Your task to perform on an android device: change keyboard looks Image 0: 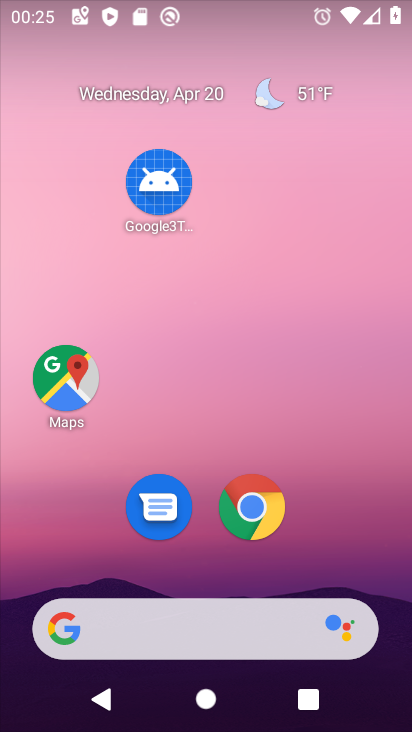
Step 0: drag from (203, 577) to (254, 0)
Your task to perform on an android device: change keyboard looks Image 1: 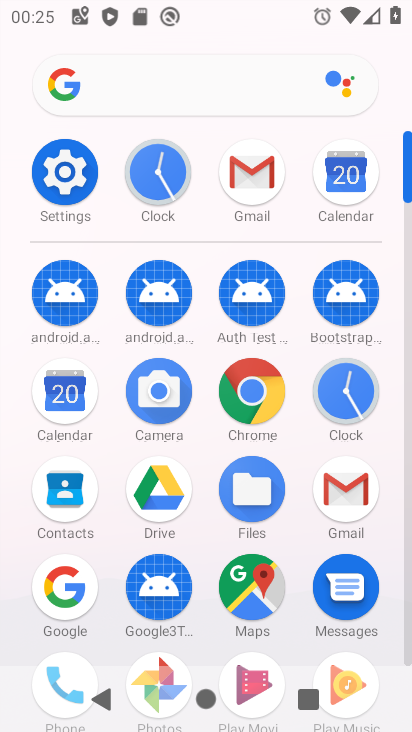
Step 1: click (58, 169)
Your task to perform on an android device: change keyboard looks Image 2: 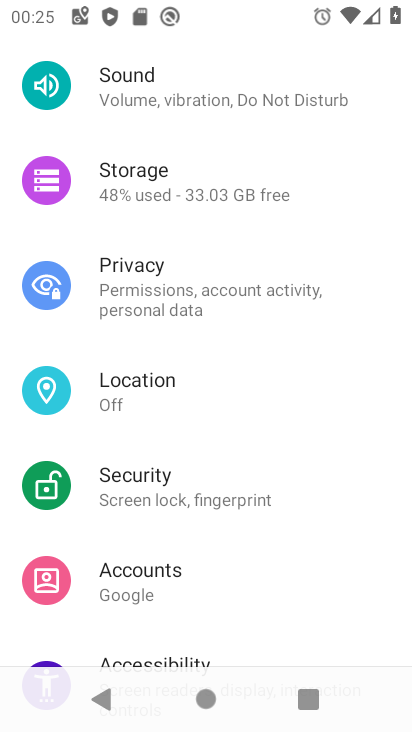
Step 2: drag from (239, 549) to (290, 23)
Your task to perform on an android device: change keyboard looks Image 3: 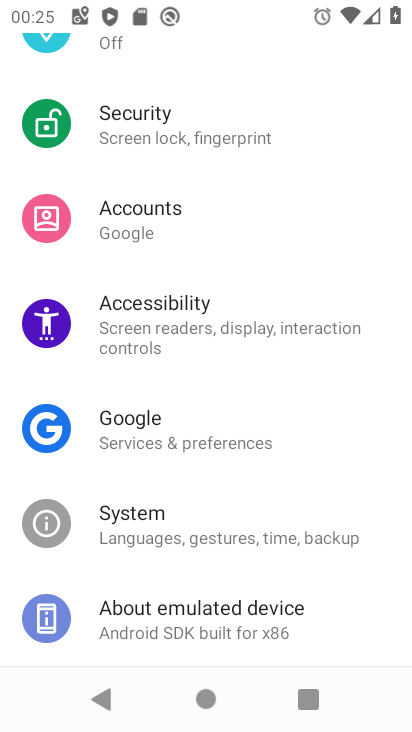
Step 3: drag from (195, 557) to (180, 70)
Your task to perform on an android device: change keyboard looks Image 4: 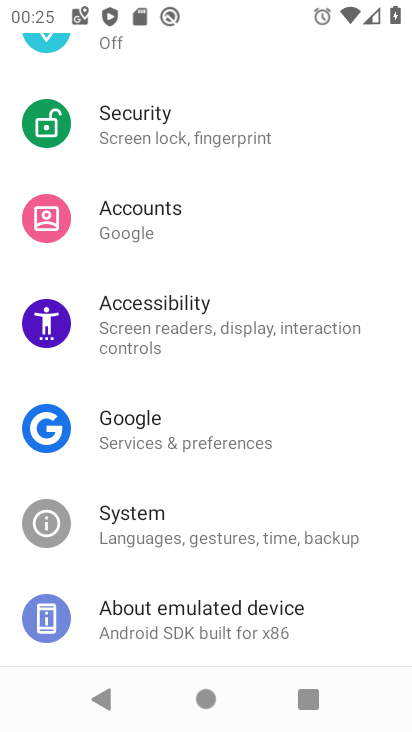
Step 4: click (132, 519)
Your task to perform on an android device: change keyboard looks Image 5: 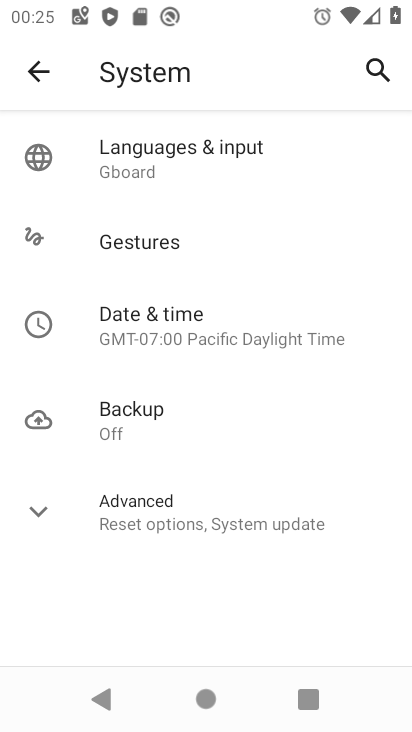
Step 5: click (132, 149)
Your task to perform on an android device: change keyboard looks Image 6: 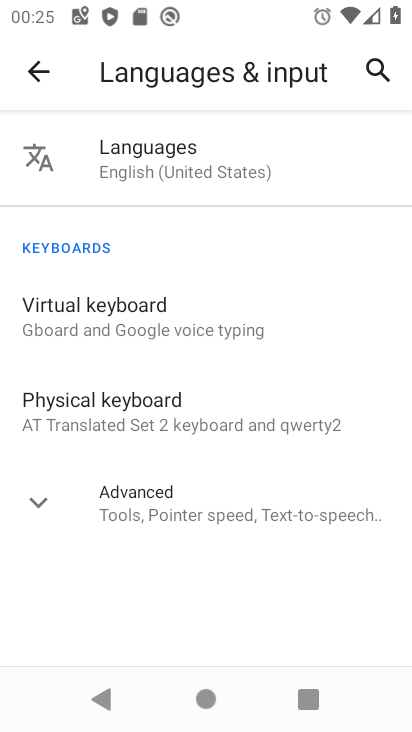
Step 6: click (99, 297)
Your task to perform on an android device: change keyboard looks Image 7: 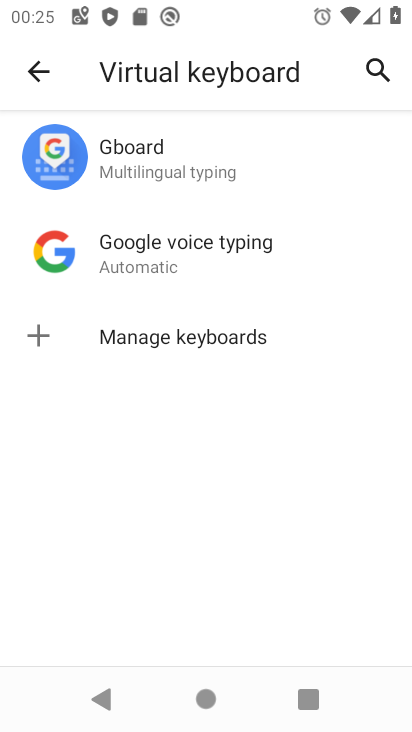
Step 7: click (130, 161)
Your task to perform on an android device: change keyboard looks Image 8: 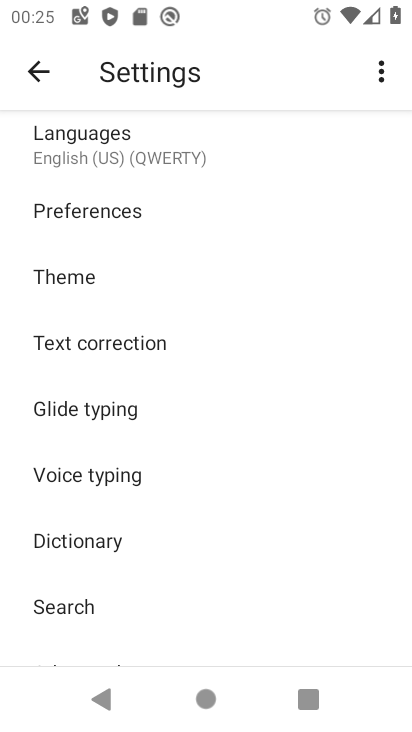
Step 8: click (75, 280)
Your task to perform on an android device: change keyboard looks Image 9: 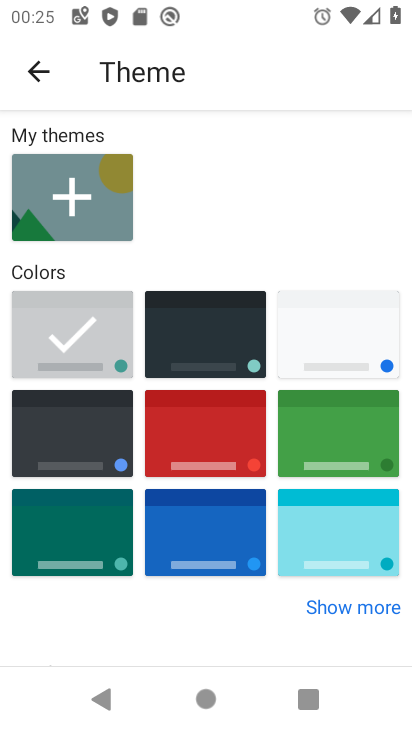
Step 9: click (109, 524)
Your task to perform on an android device: change keyboard looks Image 10: 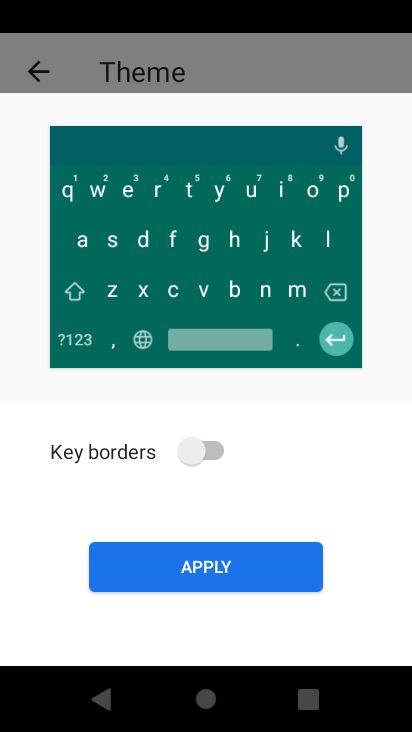
Step 10: click (167, 565)
Your task to perform on an android device: change keyboard looks Image 11: 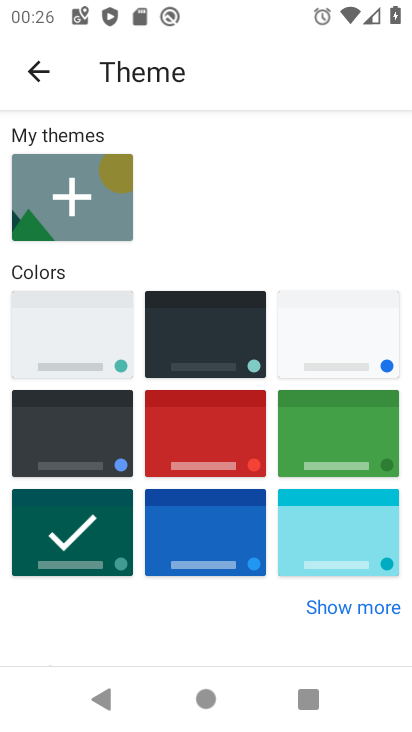
Step 11: task complete